Your task to perform on an android device: set an alarm Image 0: 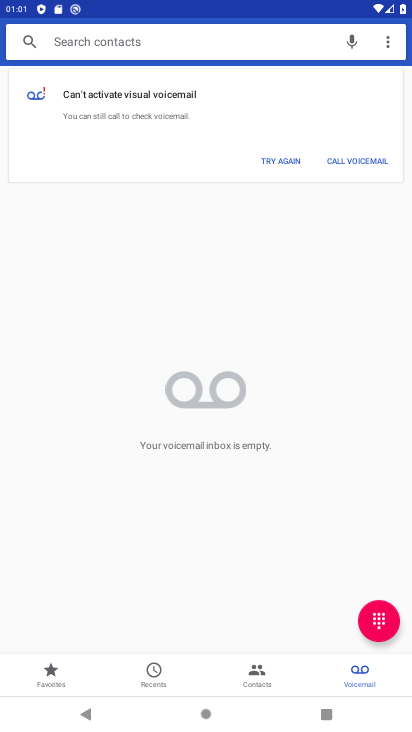
Step 0: press home button
Your task to perform on an android device: set an alarm Image 1: 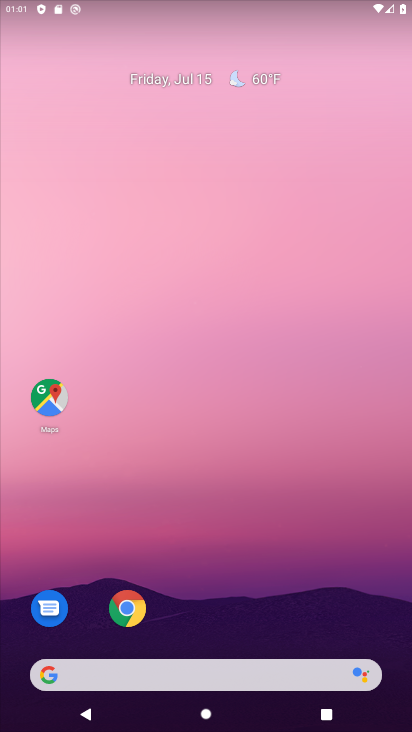
Step 1: drag from (304, 622) to (309, 86)
Your task to perform on an android device: set an alarm Image 2: 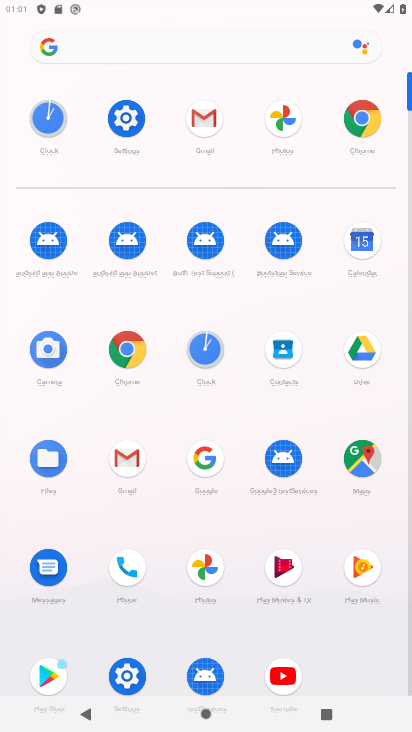
Step 2: click (185, 349)
Your task to perform on an android device: set an alarm Image 3: 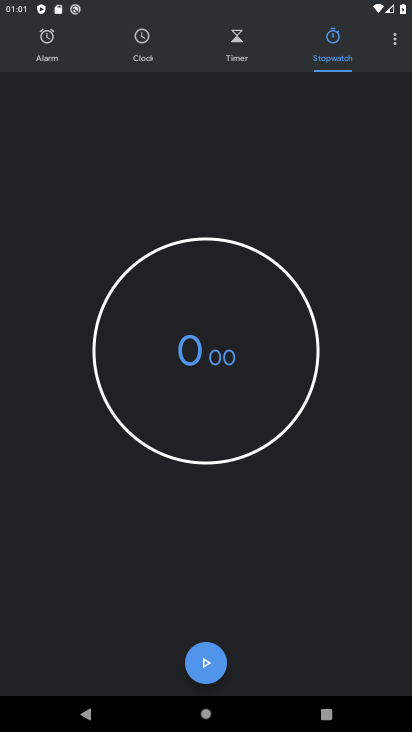
Step 3: click (46, 62)
Your task to perform on an android device: set an alarm Image 4: 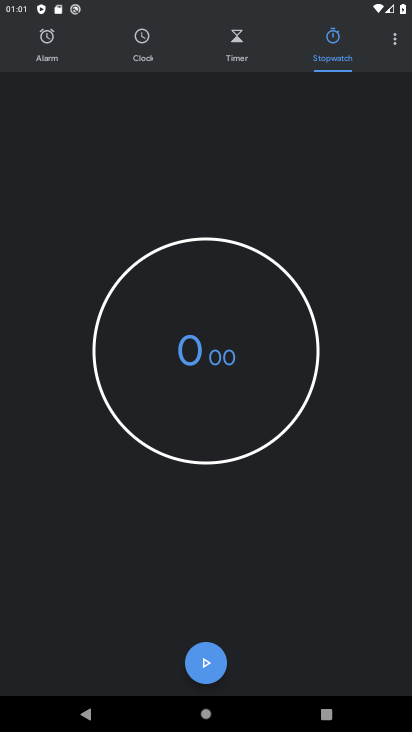
Step 4: click (46, 62)
Your task to perform on an android device: set an alarm Image 5: 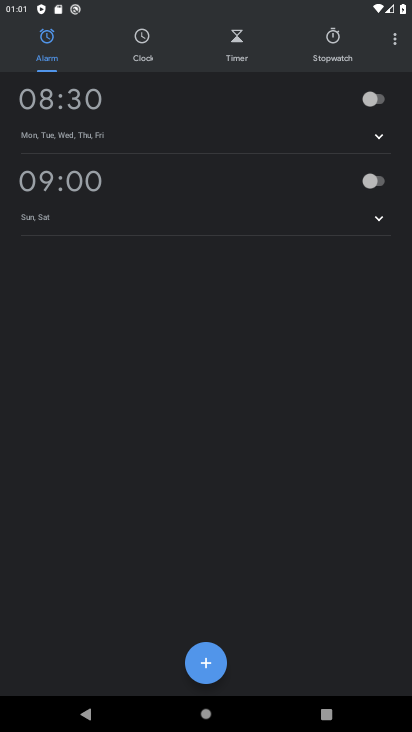
Step 5: click (216, 666)
Your task to perform on an android device: set an alarm Image 6: 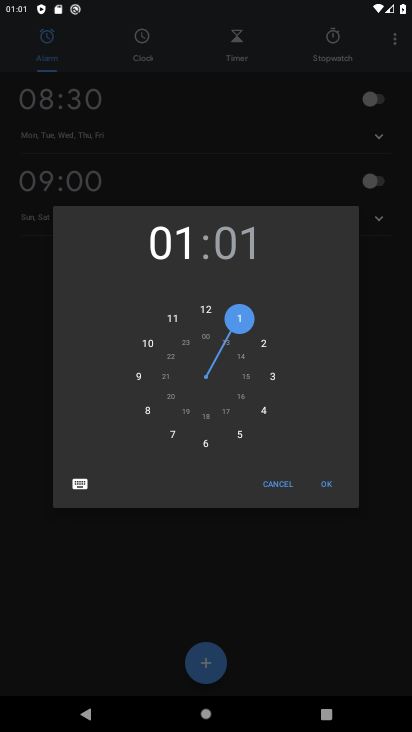
Step 6: click (210, 445)
Your task to perform on an android device: set an alarm Image 7: 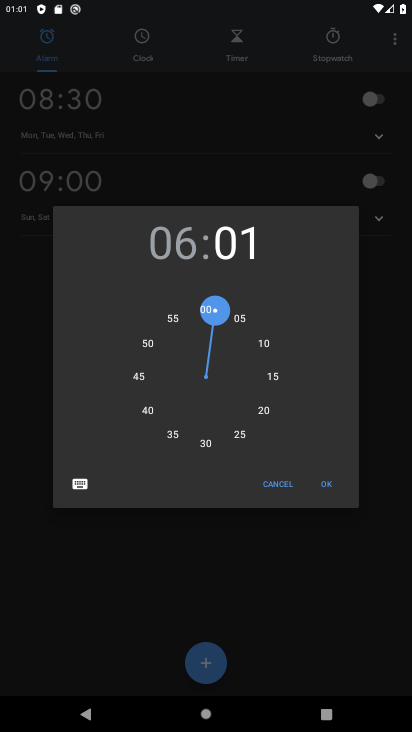
Step 7: click (311, 487)
Your task to perform on an android device: set an alarm Image 8: 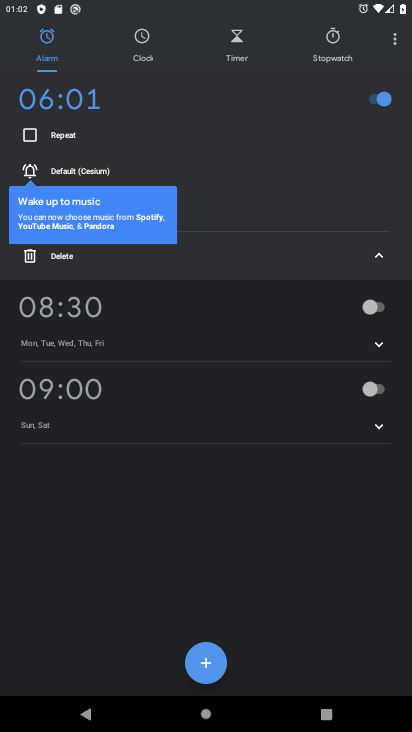
Step 8: task complete